Your task to perform on an android device: Open settings Image 0: 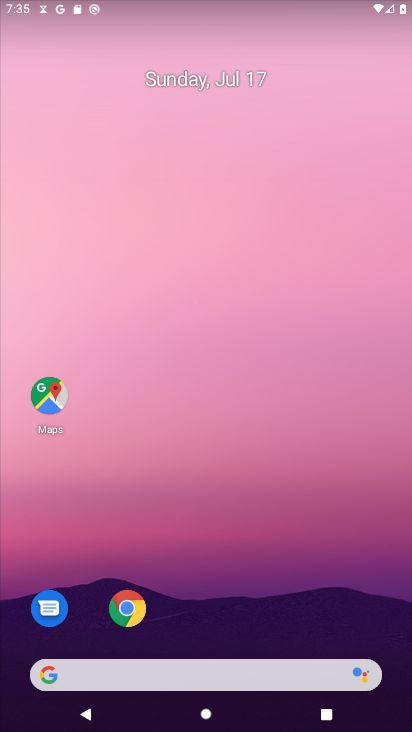
Step 0: drag from (243, 657) to (193, 119)
Your task to perform on an android device: Open settings Image 1: 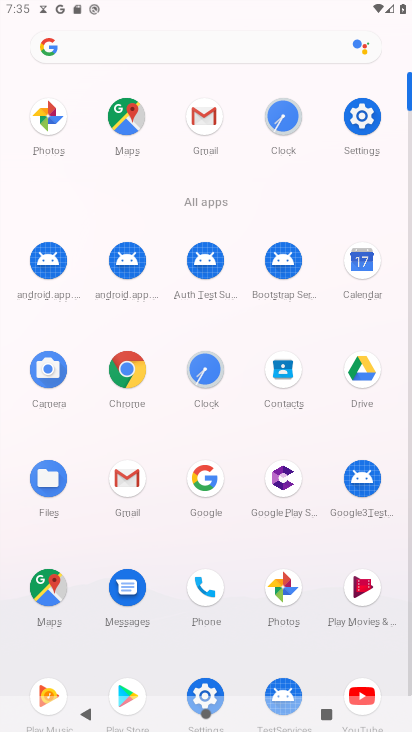
Step 1: click (352, 124)
Your task to perform on an android device: Open settings Image 2: 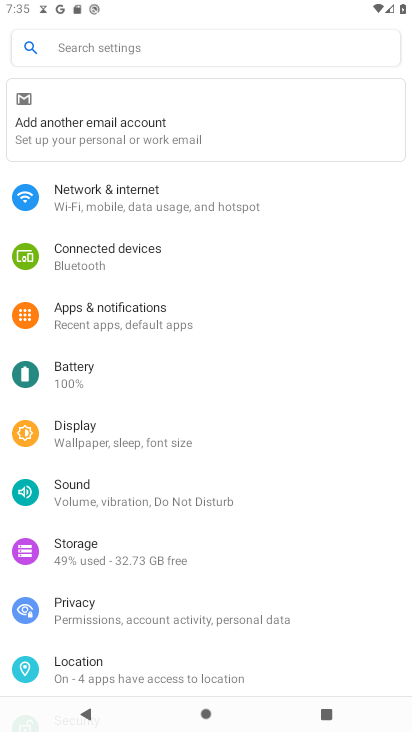
Step 2: task complete